Your task to perform on an android device: Go to location settings Image 0: 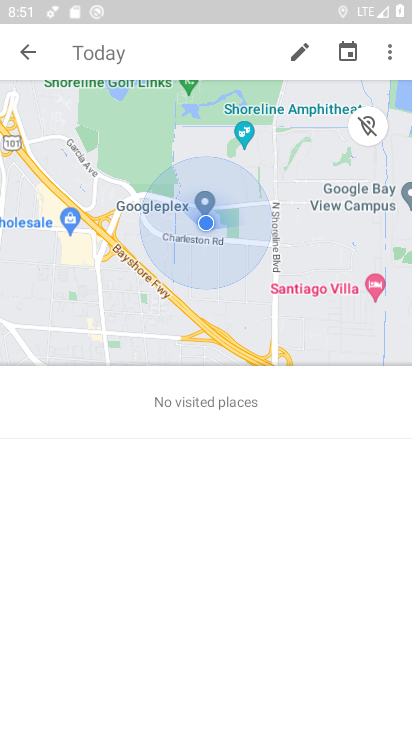
Step 0: press home button
Your task to perform on an android device: Go to location settings Image 1: 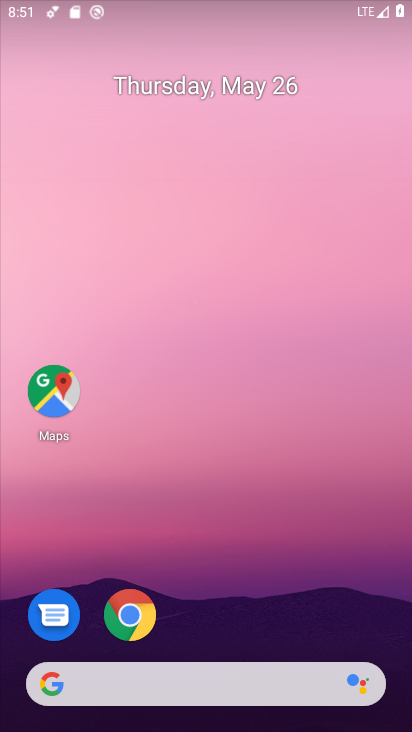
Step 1: drag from (236, 500) to (257, 267)
Your task to perform on an android device: Go to location settings Image 2: 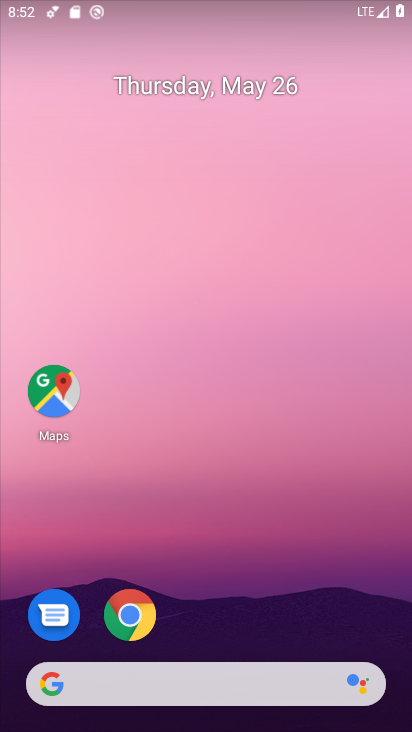
Step 2: drag from (179, 529) to (202, 183)
Your task to perform on an android device: Go to location settings Image 3: 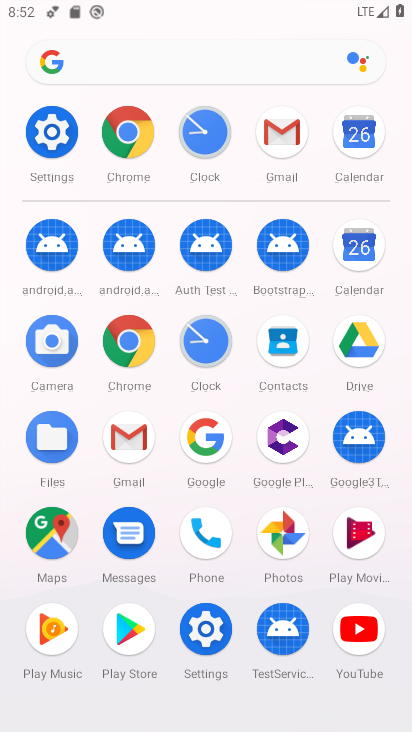
Step 3: click (55, 137)
Your task to perform on an android device: Go to location settings Image 4: 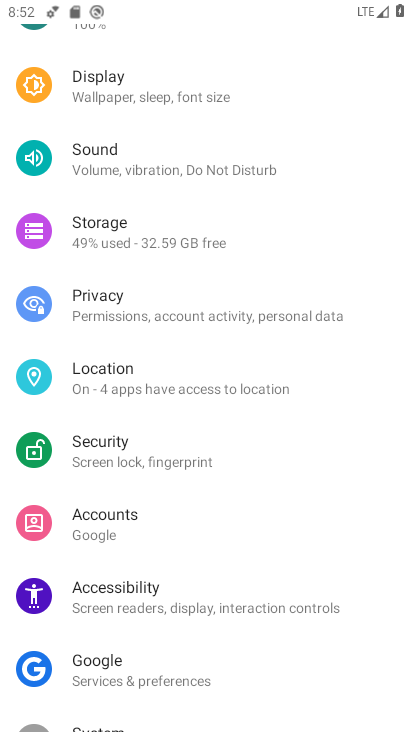
Step 4: click (151, 374)
Your task to perform on an android device: Go to location settings Image 5: 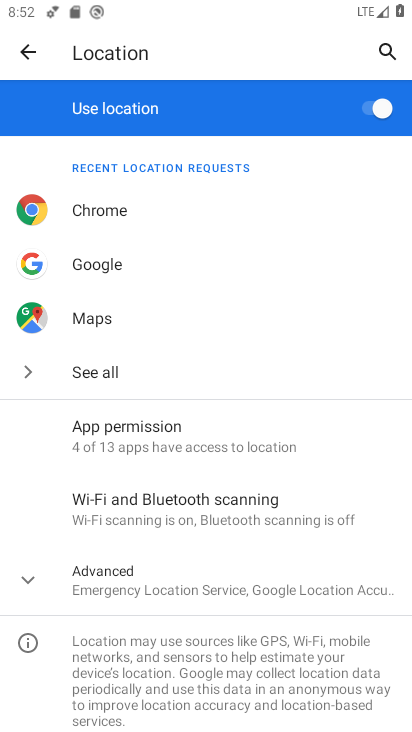
Step 5: task complete